Your task to perform on an android device: set an alarm Image 0: 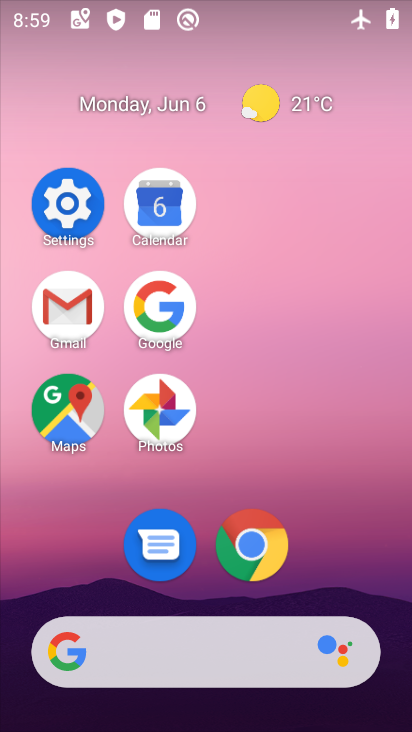
Step 0: drag from (343, 349) to (369, 81)
Your task to perform on an android device: set an alarm Image 1: 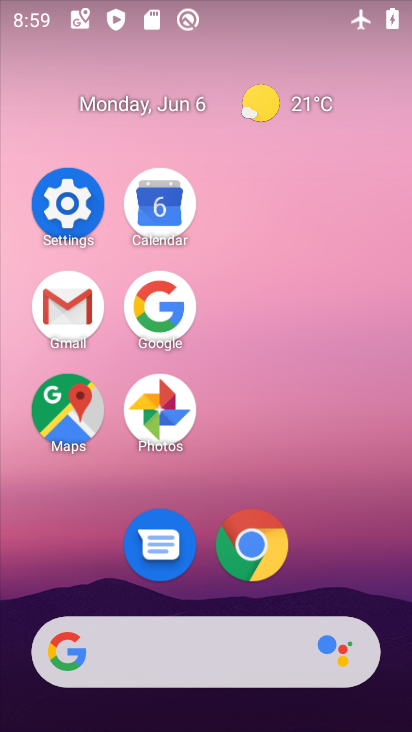
Step 1: drag from (335, 512) to (322, 65)
Your task to perform on an android device: set an alarm Image 2: 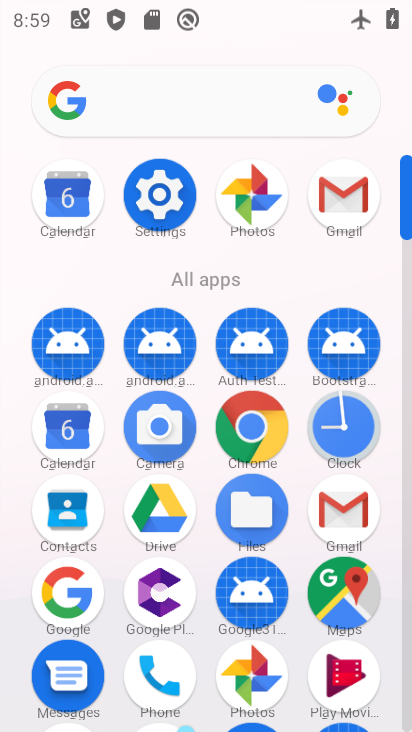
Step 2: drag from (335, 427) to (203, 220)
Your task to perform on an android device: set an alarm Image 3: 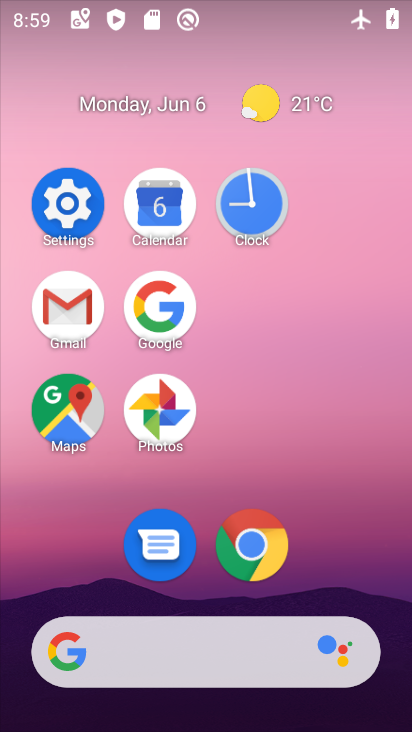
Step 3: click (250, 211)
Your task to perform on an android device: set an alarm Image 4: 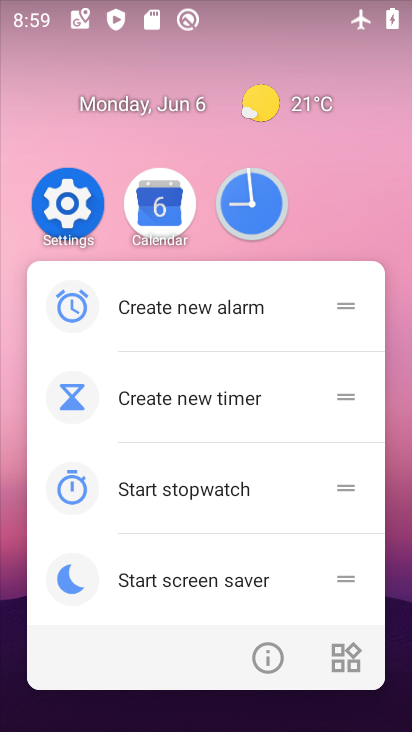
Step 4: click (210, 292)
Your task to perform on an android device: set an alarm Image 5: 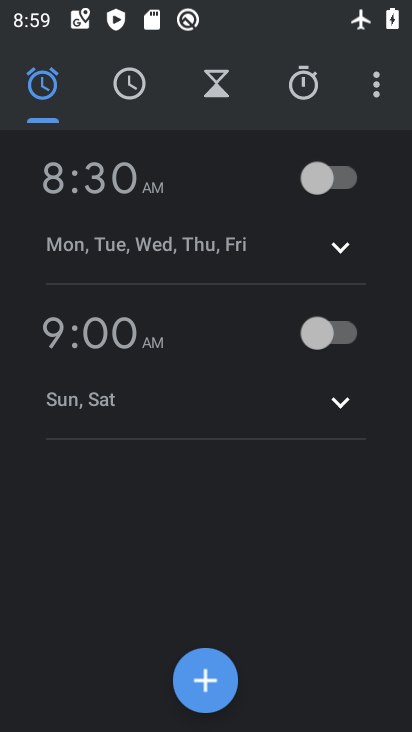
Step 5: click (314, 189)
Your task to perform on an android device: set an alarm Image 6: 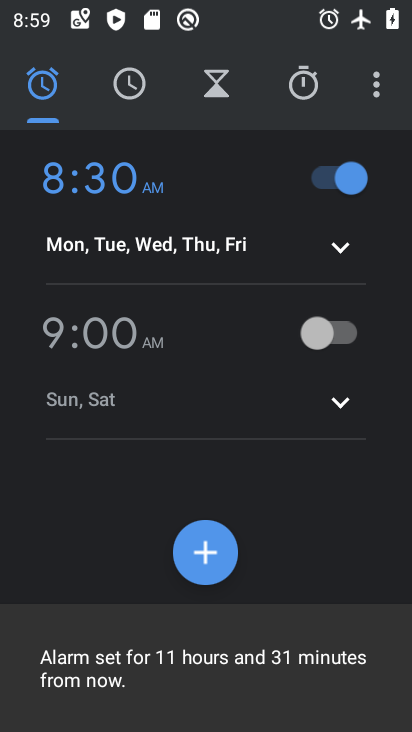
Step 6: task complete